Your task to perform on an android device: Open Youtube and go to the subscriptions tab Image 0: 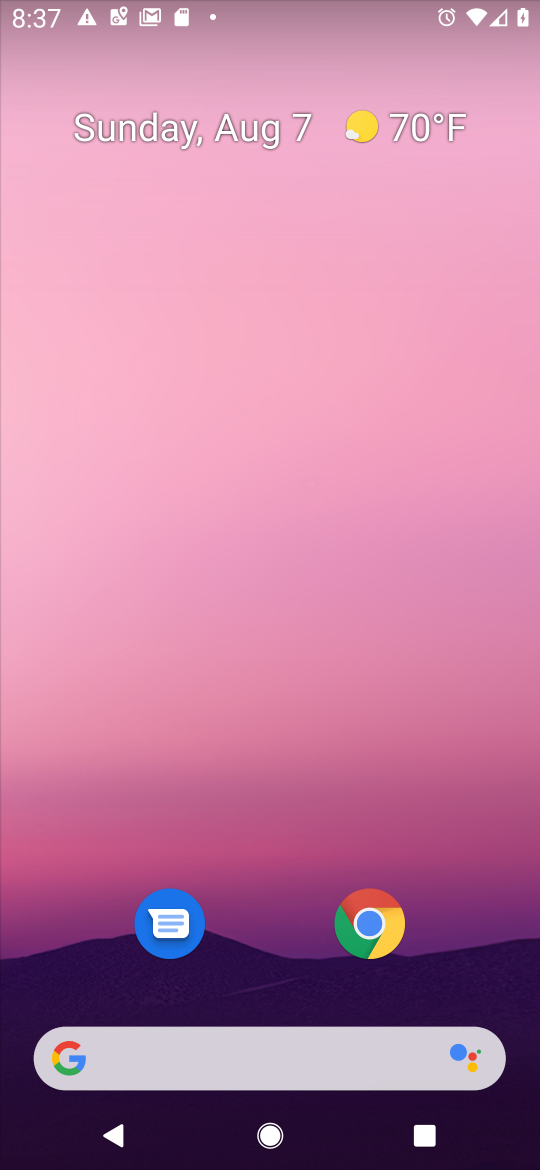
Step 0: drag from (479, 951) to (304, 90)
Your task to perform on an android device: Open Youtube and go to the subscriptions tab Image 1: 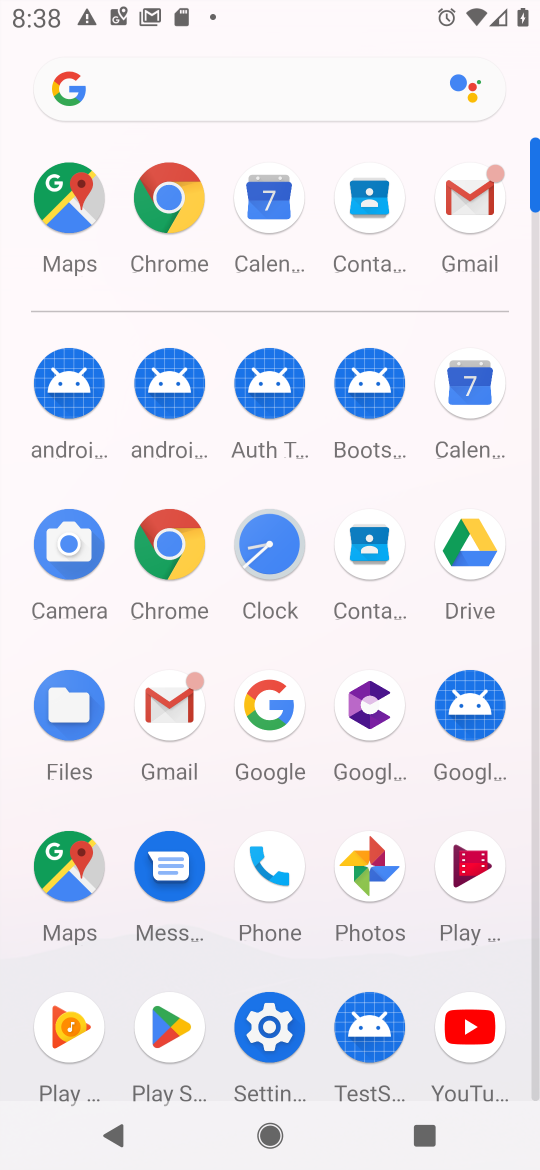
Step 1: click (481, 1036)
Your task to perform on an android device: Open Youtube and go to the subscriptions tab Image 2: 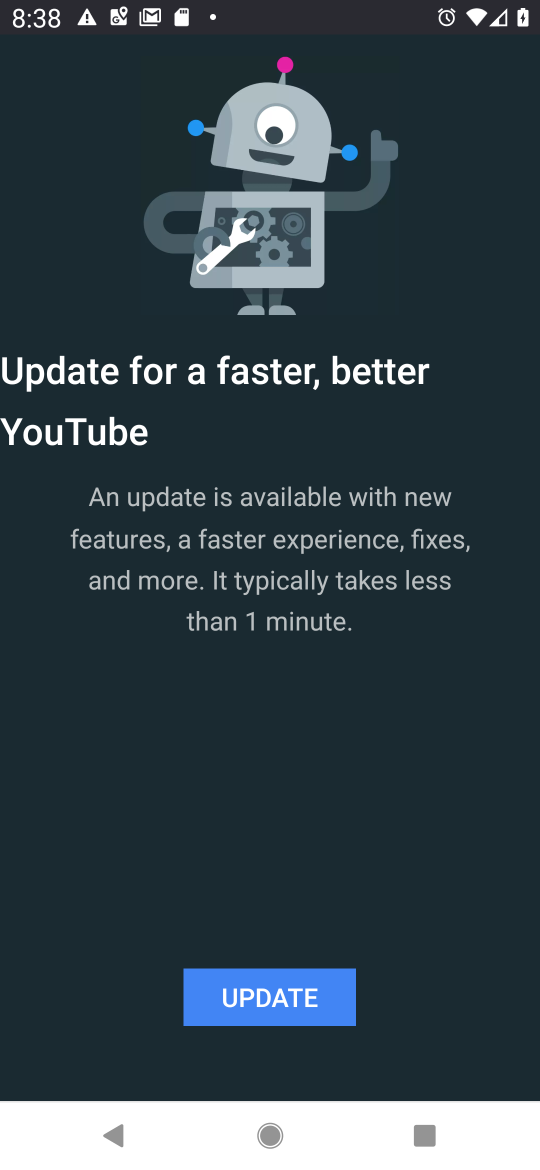
Step 2: task complete